Your task to perform on an android device: install app "Facebook" Image 0: 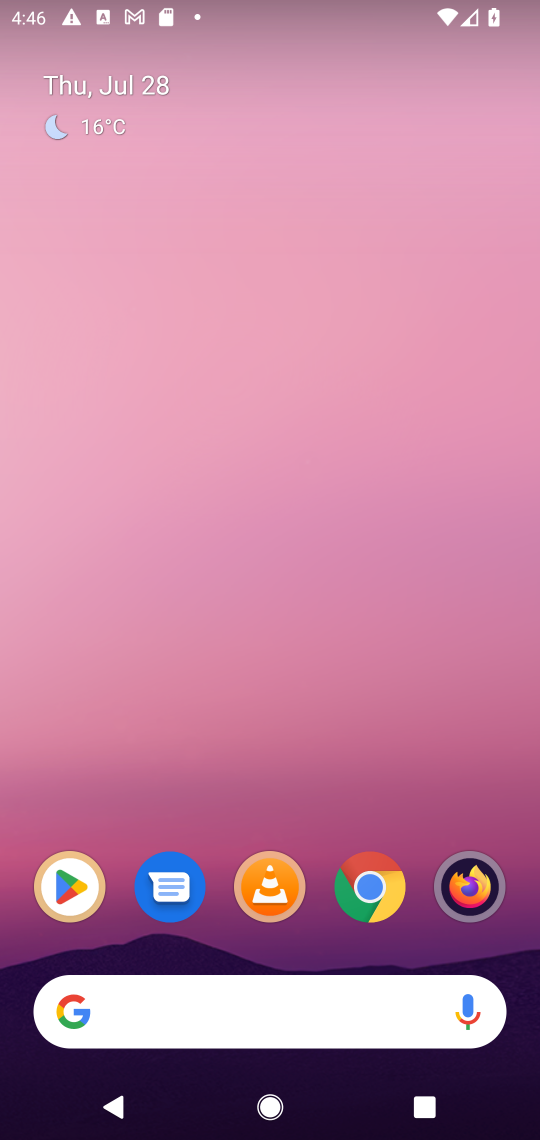
Step 0: click (73, 883)
Your task to perform on an android device: install app "Facebook" Image 1: 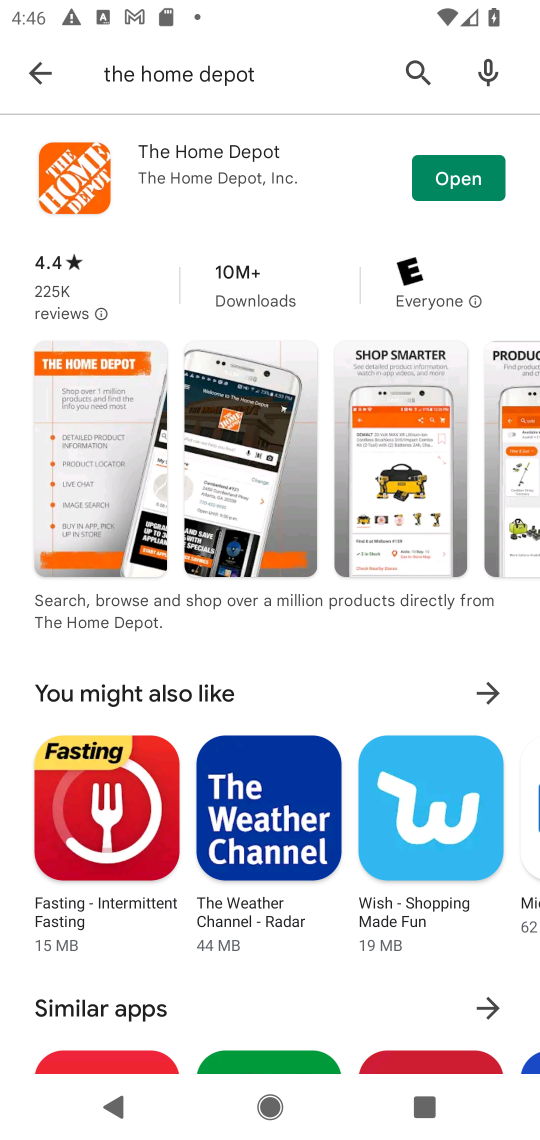
Step 1: click (265, 87)
Your task to perform on an android device: install app "Facebook" Image 2: 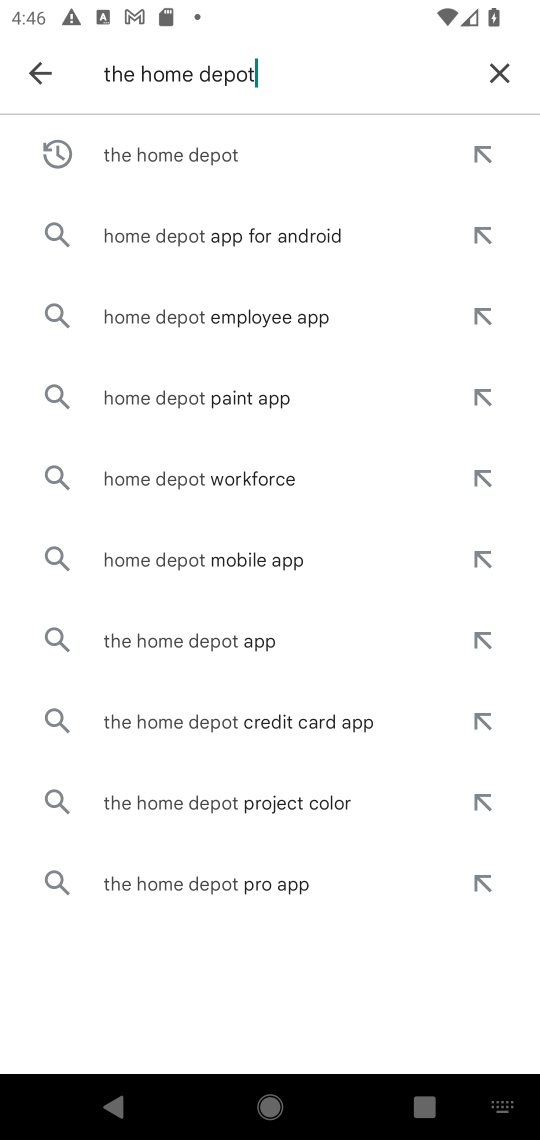
Step 2: click (488, 68)
Your task to perform on an android device: install app "Facebook" Image 3: 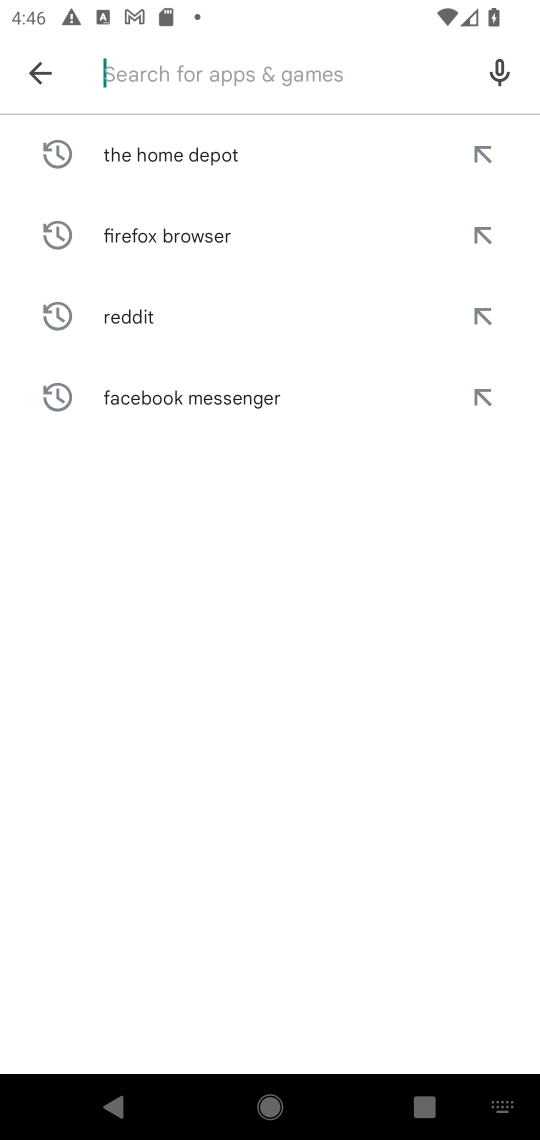
Step 3: type "Facebook"
Your task to perform on an android device: install app "Facebook" Image 4: 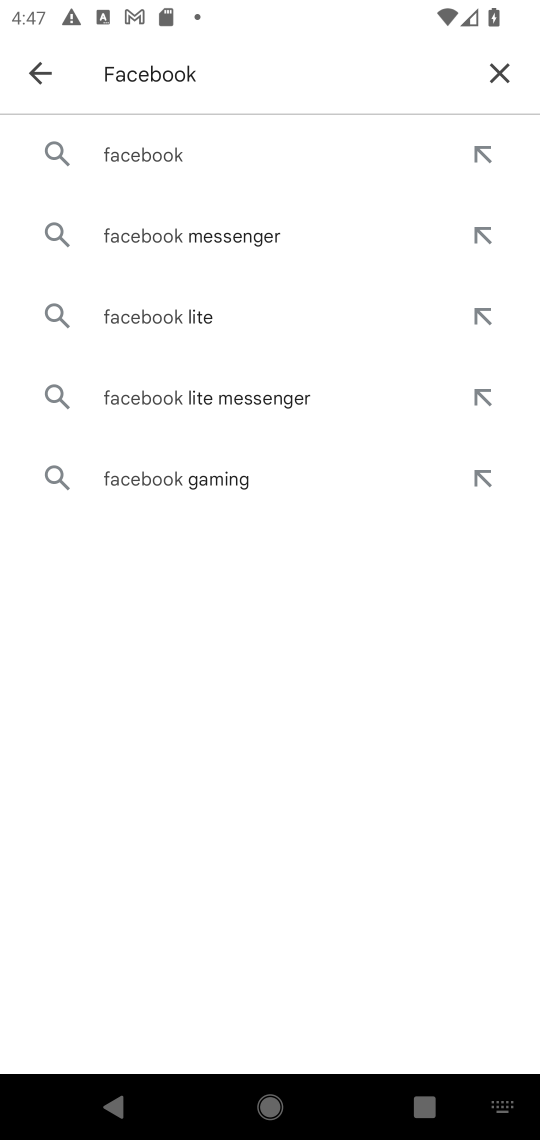
Step 4: click (169, 157)
Your task to perform on an android device: install app "Facebook" Image 5: 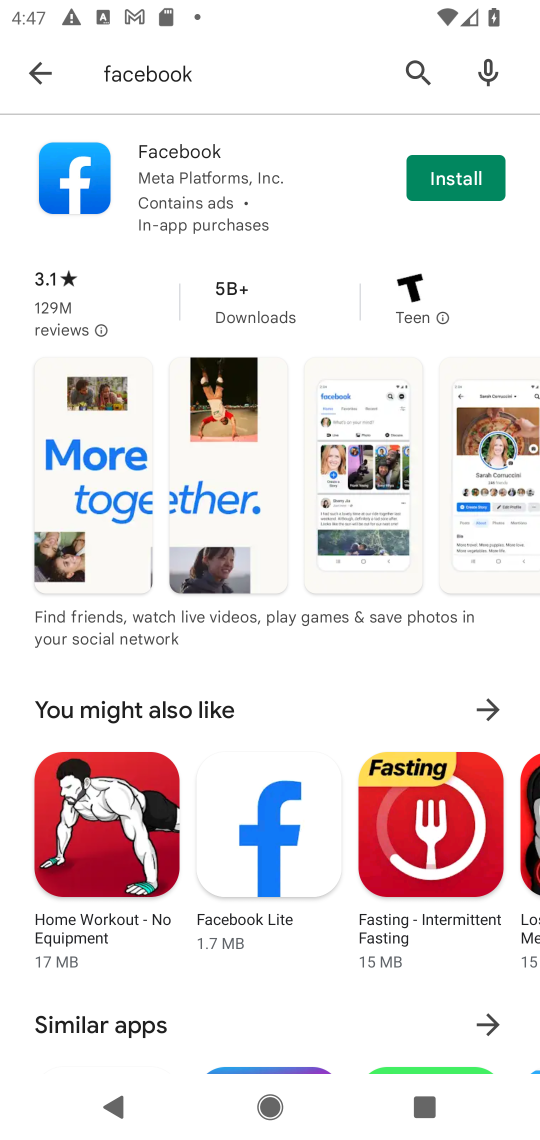
Step 5: click (460, 175)
Your task to perform on an android device: install app "Facebook" Image 6: 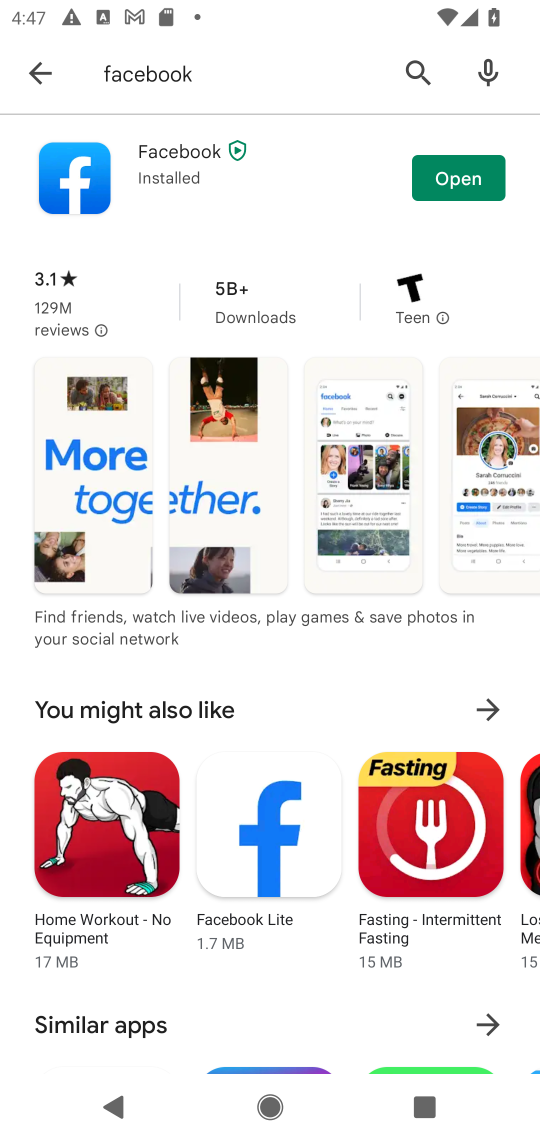
Step 6: task complete